Your task to perform on an android device: What is the news today? Image 0: 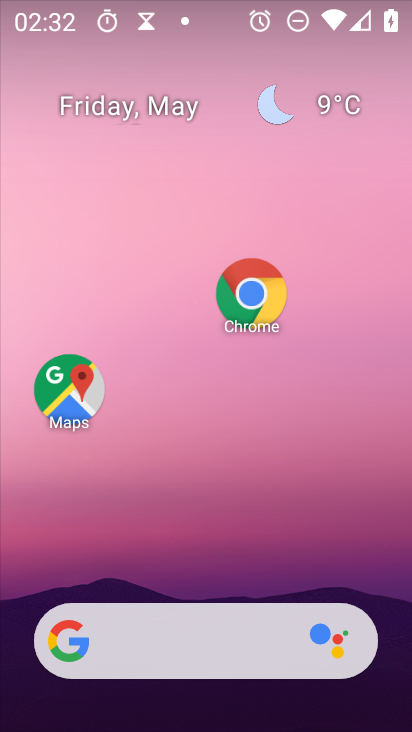
Step 0: click (78, 647)
Your task to perform on an android device: What is the news today? Image 1: 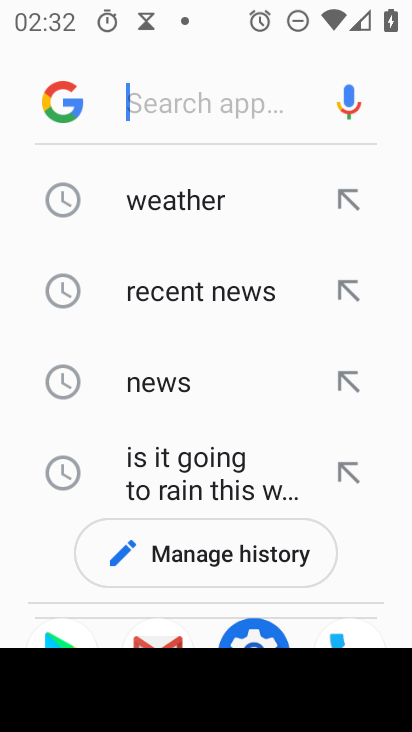
Step 1: click (193, 387)
Your task to perform on an android device: What is the news today? Image 2: 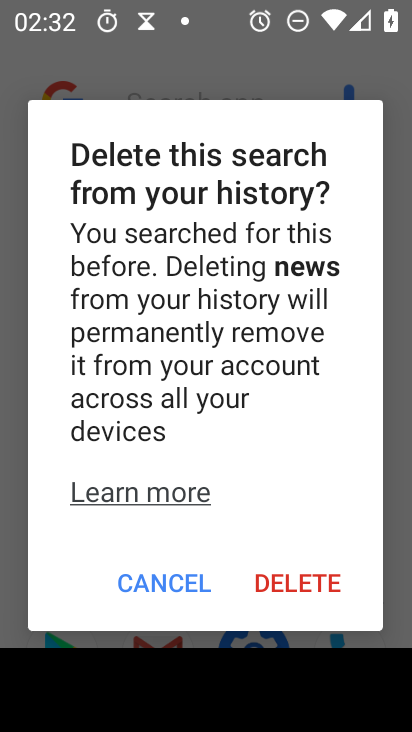
Step 2: click (190, 584)
Your task to perform on an android device: What is the news today? Image 3: 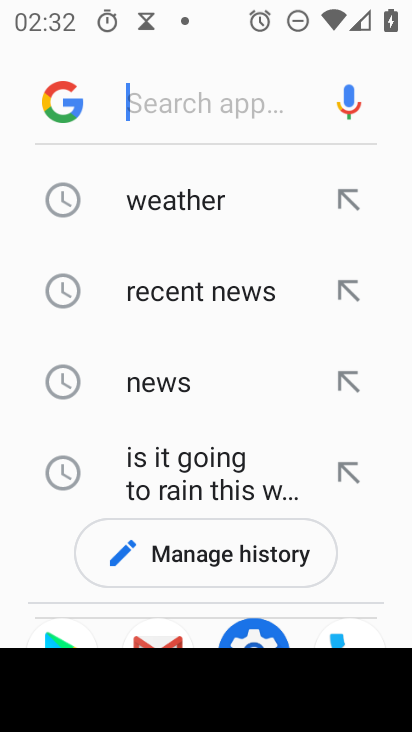
Step 3: click (154, 381)
Your task to perform on an android device: What is the news today? Image 4: 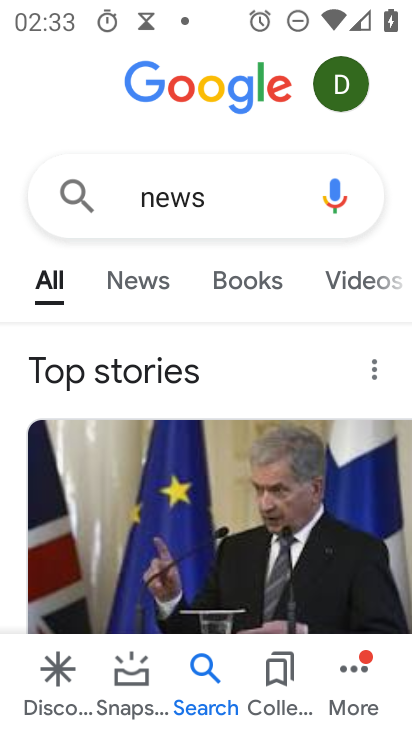
Step 4: click (164, 281)
Your task to perform on an android device: What is the news today? Image 5: 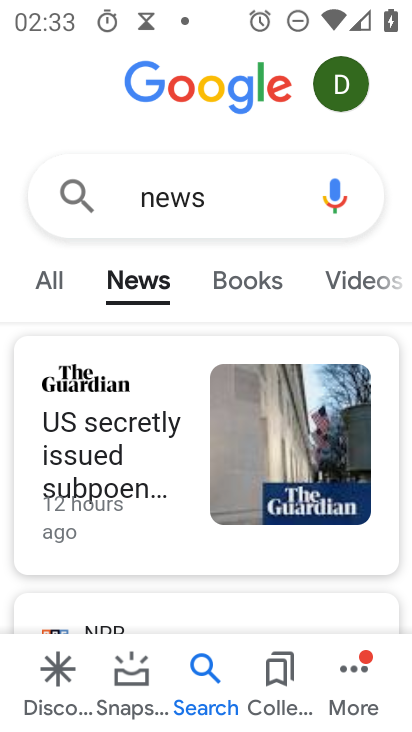
Step 5: task complete